Your task to perform on an android device: turn on data saver in the chrome app Image 0: 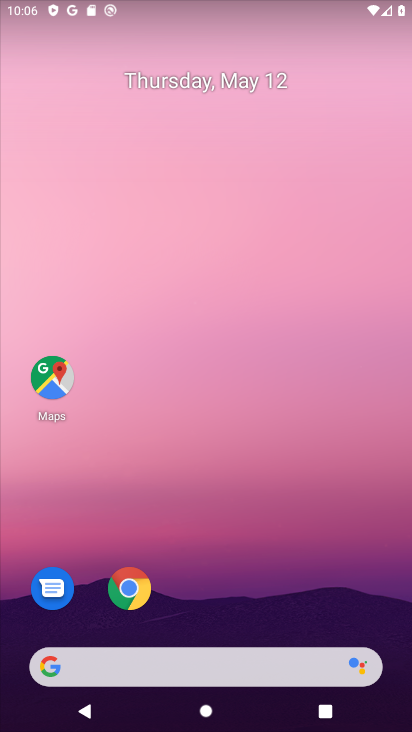
Step 0: click (121, 593)
Your task to perform on an android device: turn on data saver in the chrome app Image 1: 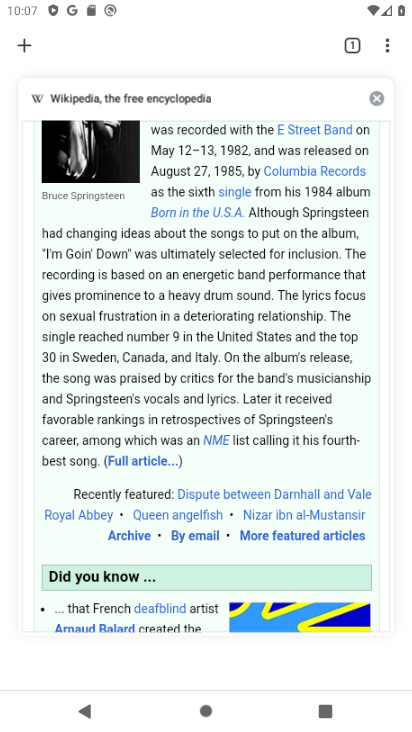
Step 1: press home button
Your task to perform on an android device: turn on data saver in the chrome app Image 2: 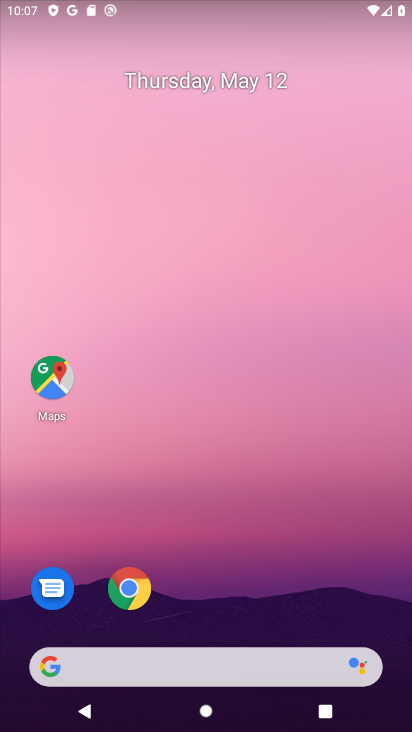
Step 2: click (133, 596)
Your task to perform on an android device: turn on data saver in the chrome app Image 3: 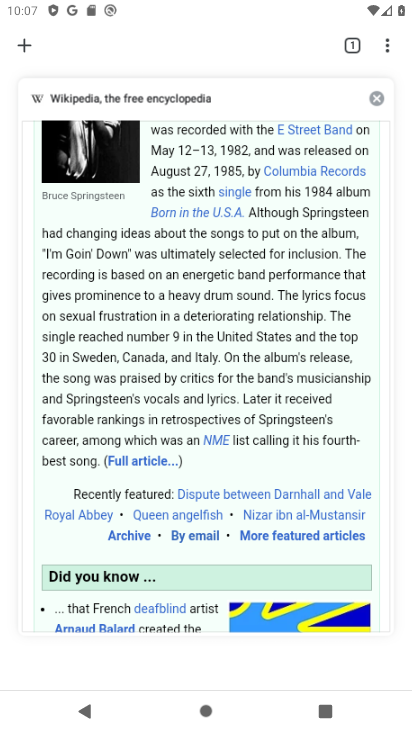
Step 3: click (386, 48)
Your task to perform on an android device: turn on data saver in the chrome app Image 4: 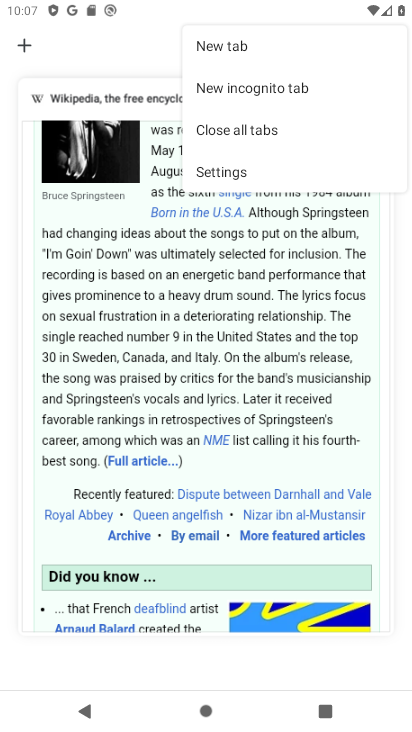
Step 4: click (220, 173)
Your task to perform on an android device: turn on data saver in the chrome app Image 5: 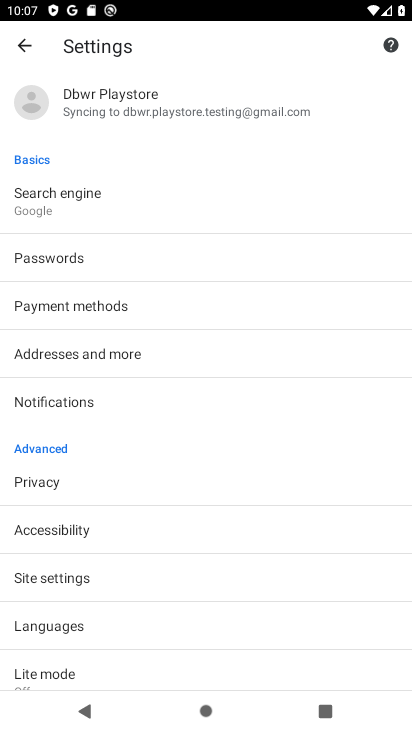
Step 5: click (21, 677)
Your task to perform on an android device: turn on data saver in the chrome app Image 6: 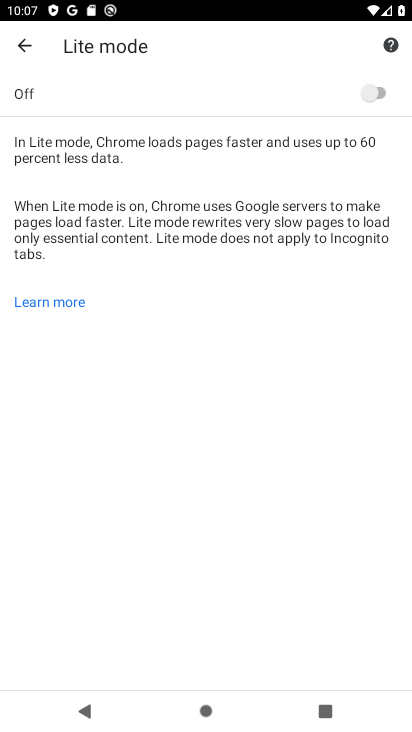
Step 6: click (373, 85)
Your task to perform on an android device: turn on data saver in the chrome app Image 7: 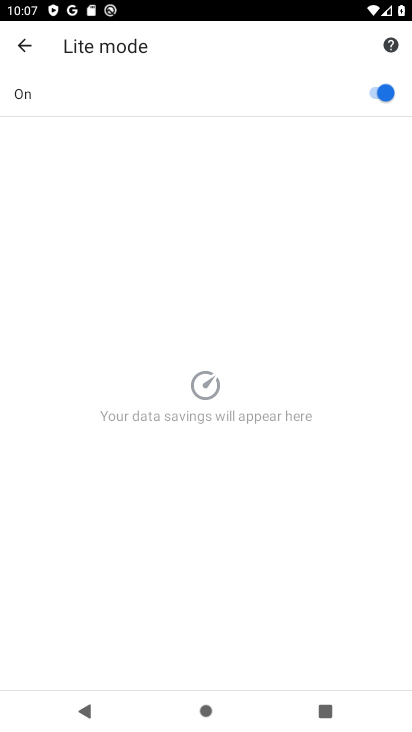
Step 7: task complete